Your task to perform on an android device: toggle data saver in the chrome app Image 0: 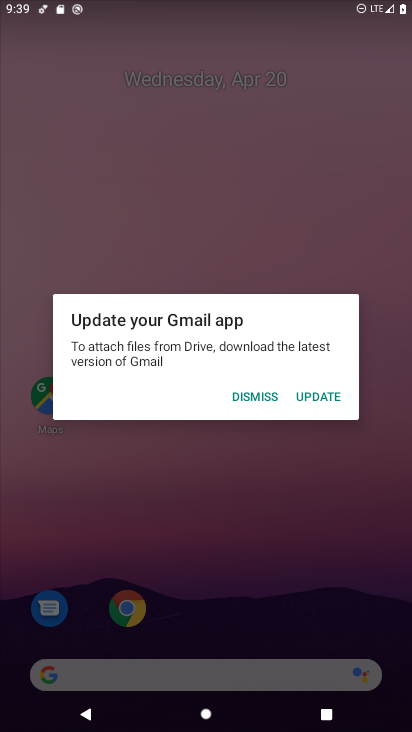
Step 0: click (254, 399)
Your task to perform on an android device: toggle data saver in the chrome app Image 1: 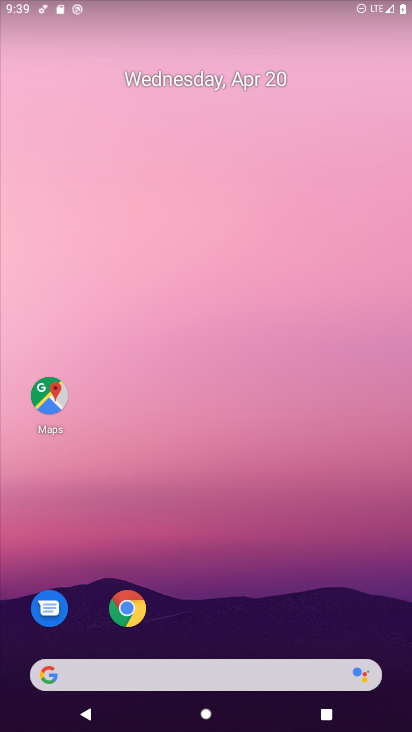
Step 1: click (131, 604)
Your task to perform on an android device: toggle data saver in the chrome app Image 2: 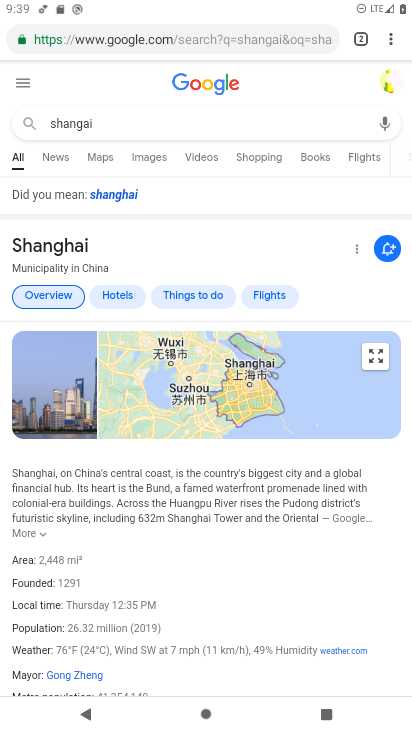
Step 2: click (390, 40)
Your task to perform on an android device: toggle data saver in the chrome app Image 3: 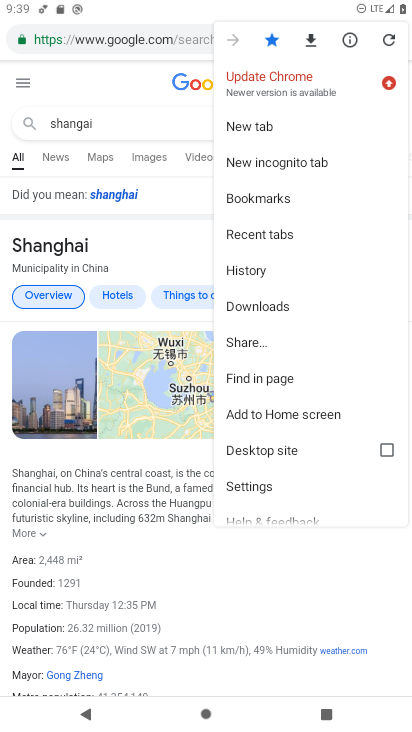
Step 3: click (258, 485)
Your task to perform on an android device: toggle data saver in the chrome app Image 4: 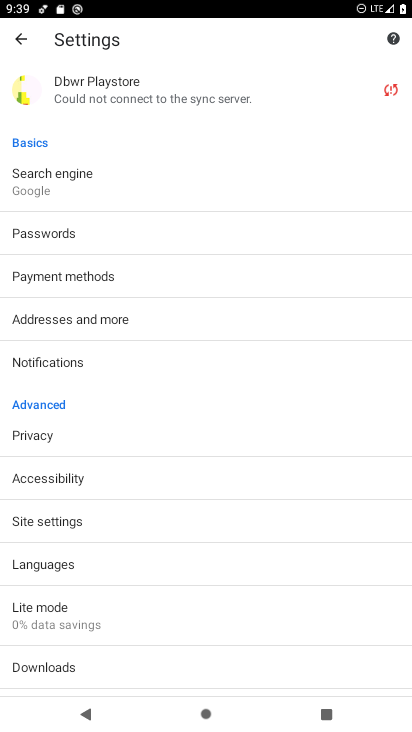
Step 4: click (47, 615)
Your task to perform on an android device: toggle data saver in the chrome app Image 5: 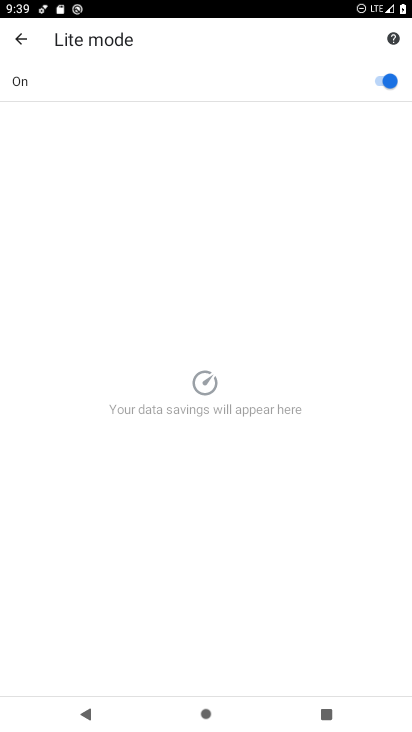
Step 5: click (377, 77)
Your task to perform on an android device: toggle data saver in the chrome app Image 6: 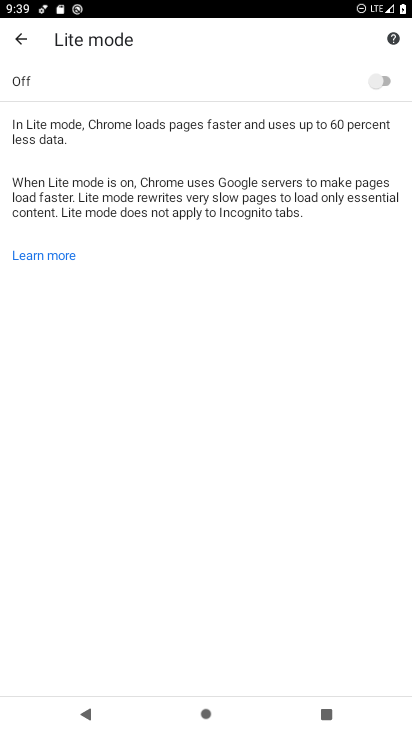
Step 6: task complete